Your task to perform on an android device: delete the emails in spam in the gmail app Image 0: 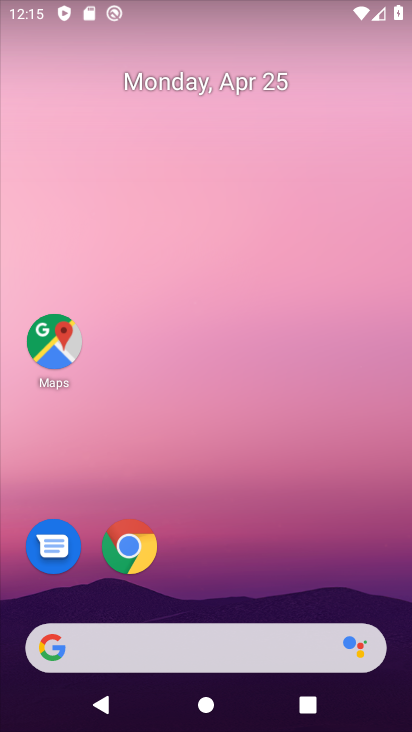
Step 0: drag from (192, 600) to (229, 109)
Your task to perform on an android device: delete the emails in spam in the gmail app Image 1: 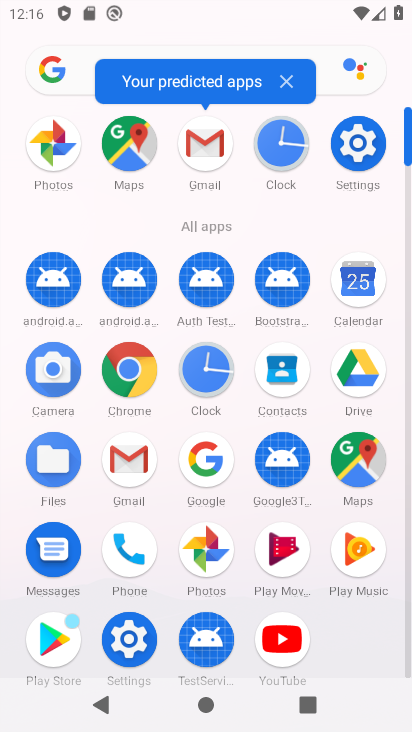
Step 1: click (122, 467)
Your task to perform on an android device: delete the emails in spam in the gmail app Image 2: 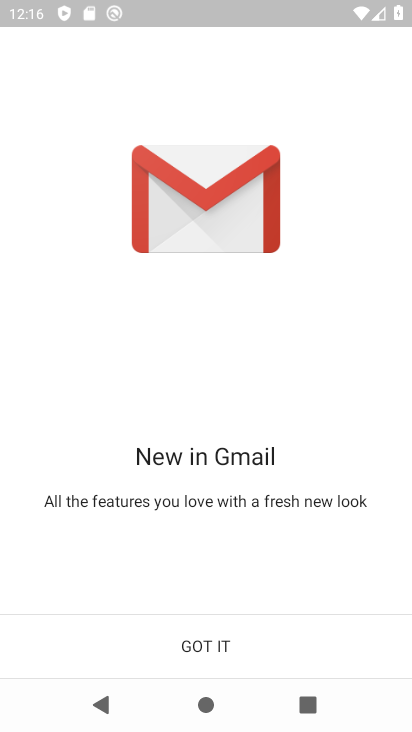
Step 2: click (228, 664)
Your task to perform on an android device: delete the emails in spam in the gmail app Image 3: 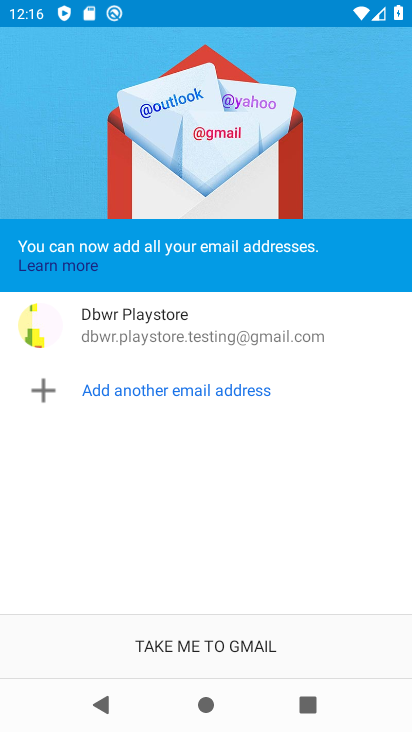
Step 3: click (185, 658)
Your task to perform on an android device: delete the emails in spam in the gmail app Image 4: 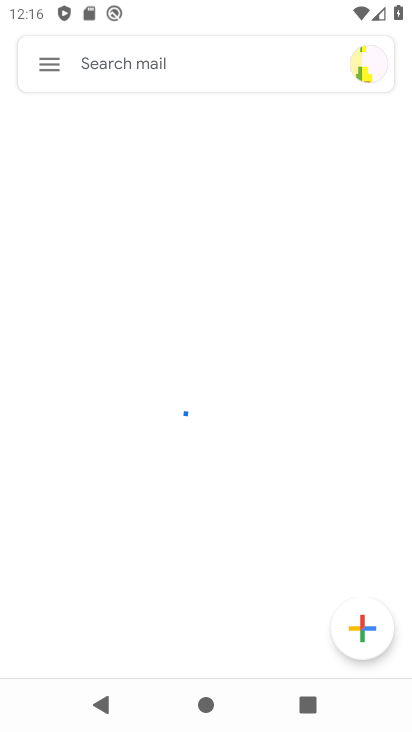
Step 4: click (34, 63)
Your task to perform on an android device: delete the emails in spam in the gmail app Image 5: 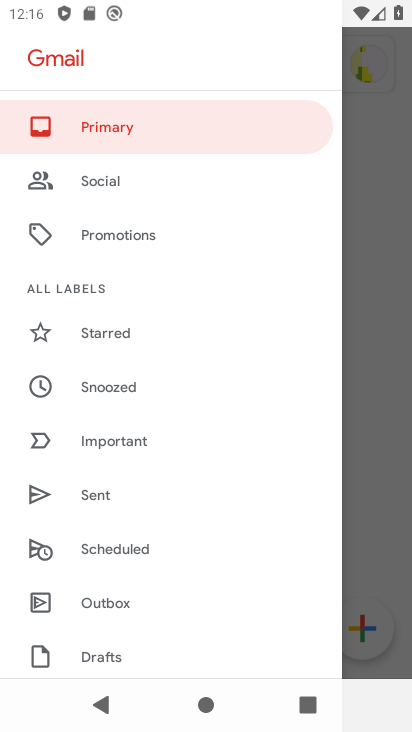
Step 5: drag from (89, 556) to (170, 127)
Your task to perform on an android device: delete the emails in spam in the gmail app Image 6: 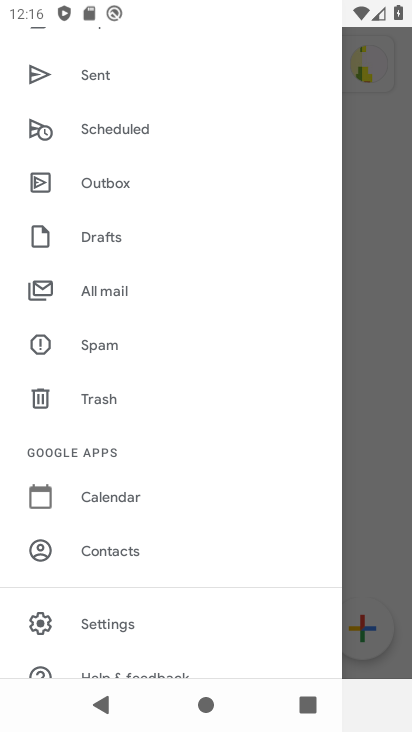
Step 6: click (92, 360)
Your task to perform on an android device: delete the emails in spam in the gmail app Image 7: 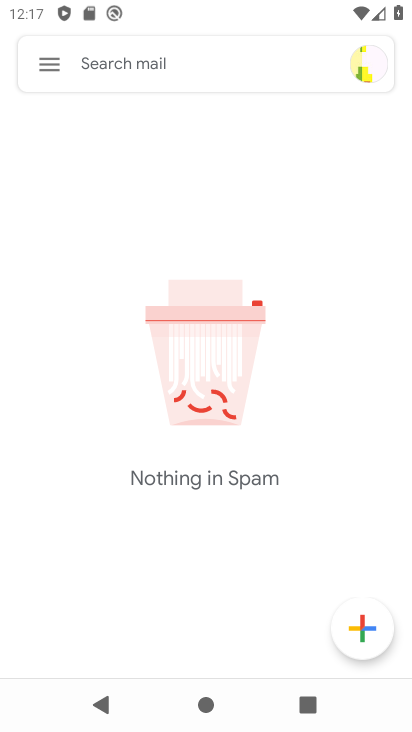
Step 7: task complete